Your task to perform on an android device: Open Chrome and go to settings Image 0: 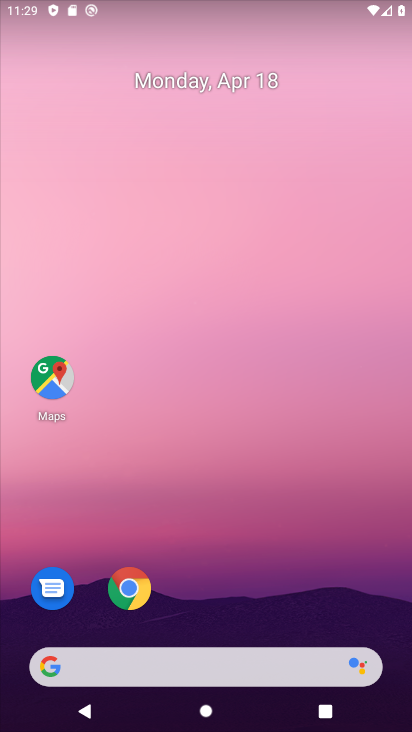
Step 0: drag from (355, 515) to (253, 37)
Your task to perform on an android device: Open Chrome and go to settings Image 1: 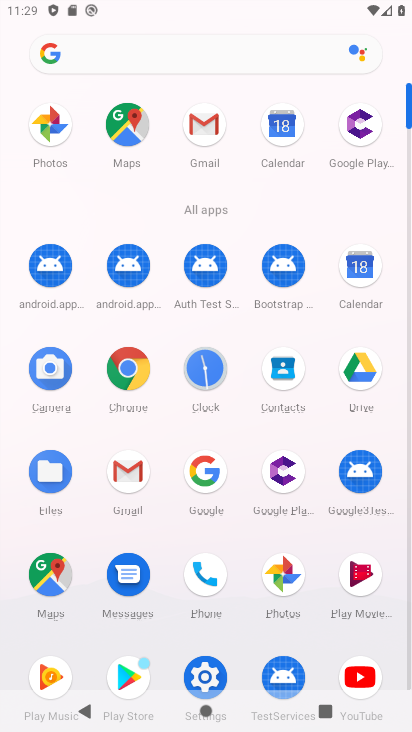
Step 1: click (128, 373)
Your task to perform on an android device: Open Chrome and go to settings Image 2: 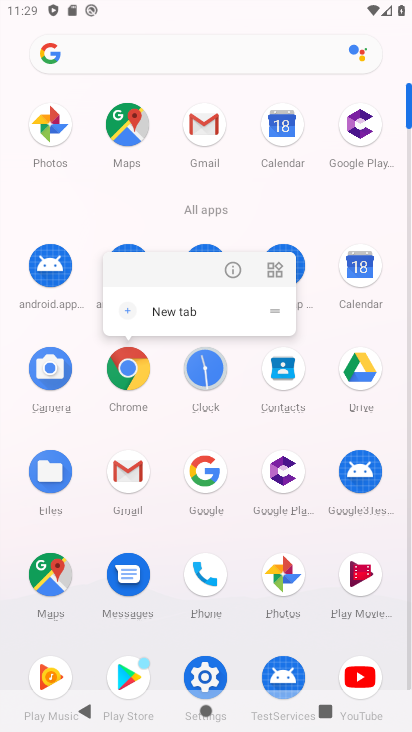
Step 2: click (132, 370)
Your task to perform on an android device: Open Chrome and go to settings Image 3: 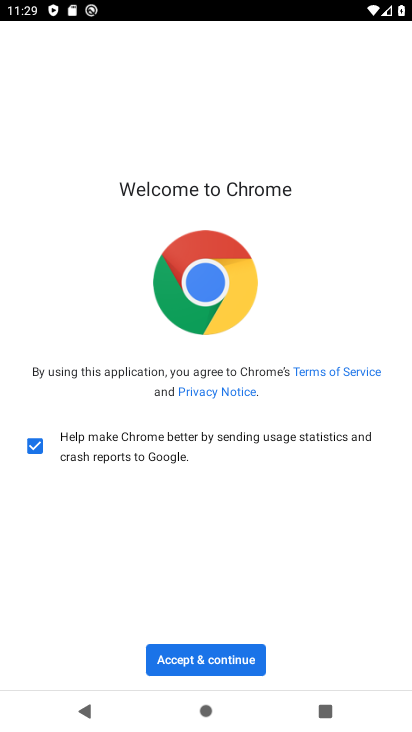
Step 3: click (234, 666)
Your task to perform on an android device: Open Chrome and go to settings Image 4: 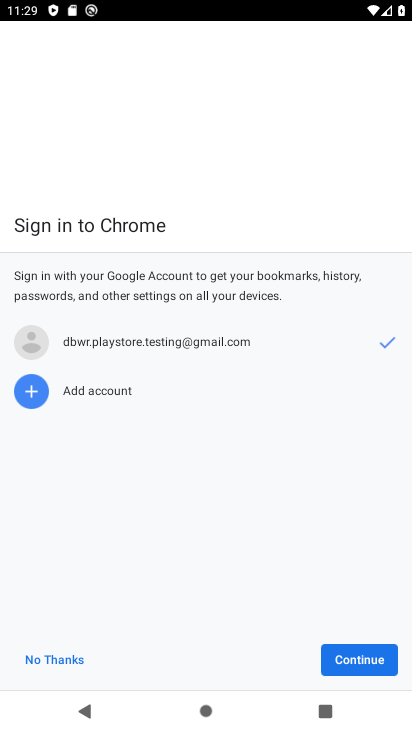
Step 4: click (354, 663)
Your task to perform on an android device: Open Chrome and go to settings Image 5: 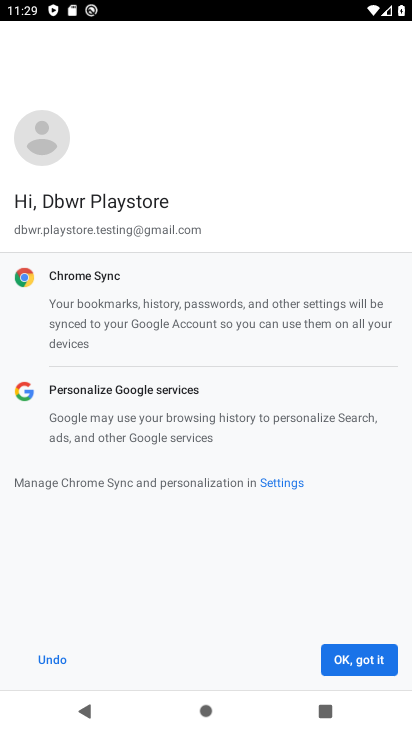
Step 5: click (364, 662)
Your task to perform on an android device: Open Chrome and go to settings Image 6: 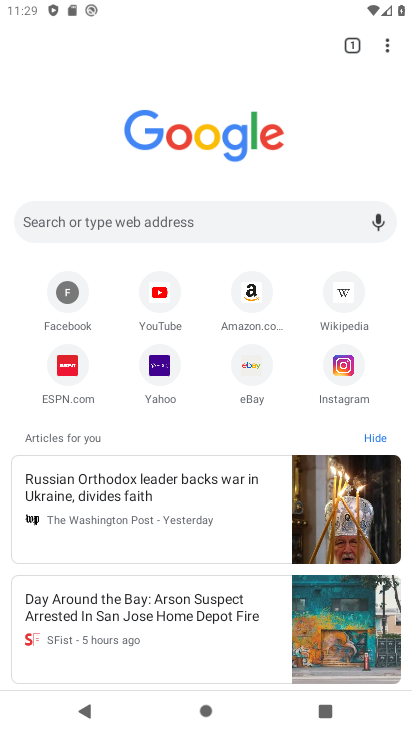
Step 6: task complete